Your task to perform on an android device: open device folders in google photos Image 0: 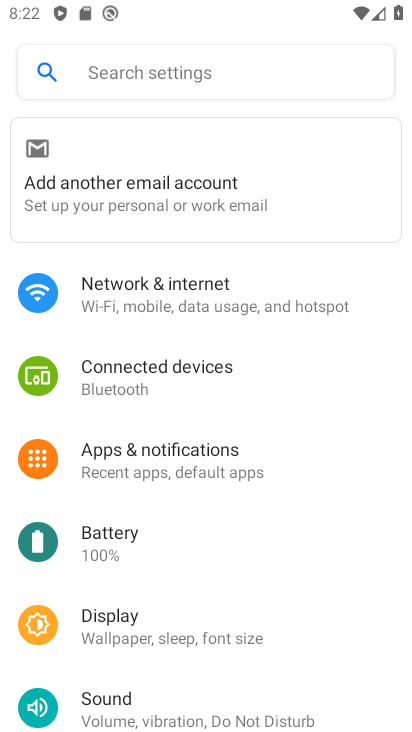
Step 0: press home button
Your task to perform on an android device: open device folders in google photos Image 1: 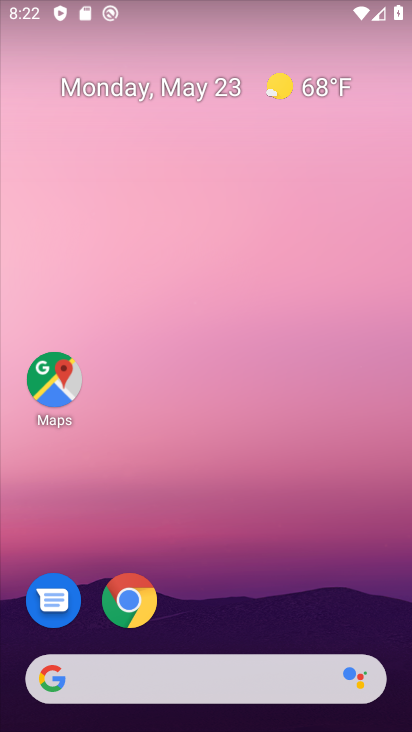
Step 1: drag from (6, 669) to (263, 121)
Your task to perform on an android device: open device folders in google photos Image 2: 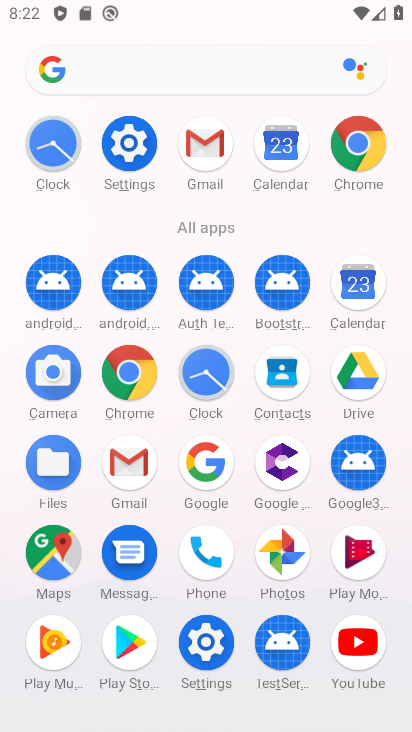
Step 2: click (254, 551)
Your task to perform on an android device: open device folders in google photos Image 3: 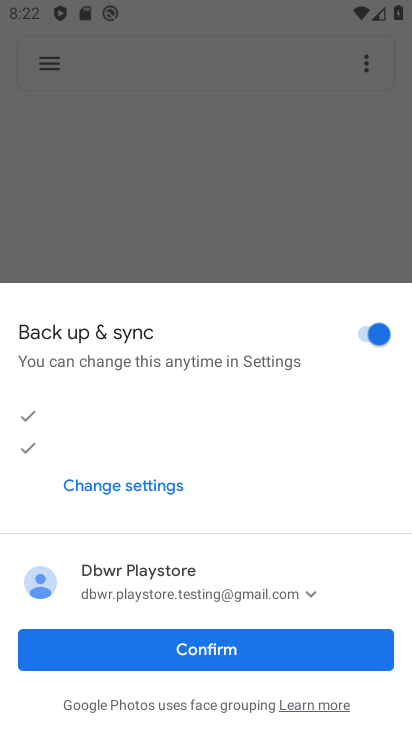
Step 3: click (38, 58)
Your task to perform on an android device: open device folders in google photos Image 4: 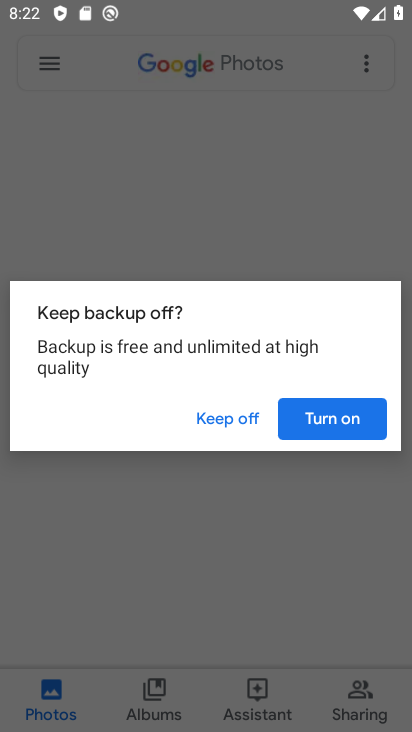
Step 4: click (287, 532)
Your task to perform on an android device: open device folders in google photos Image 5: 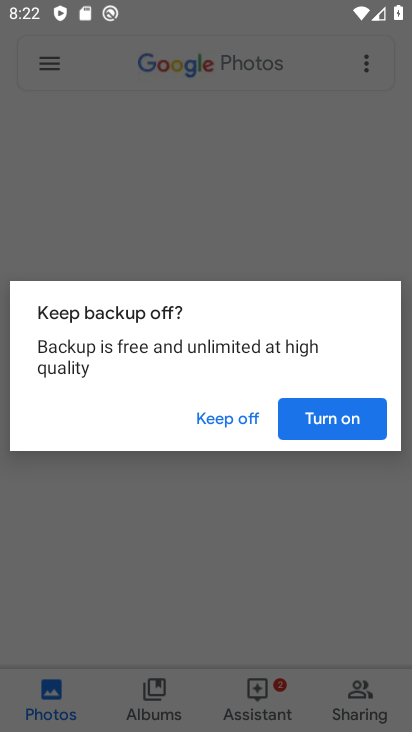
Step 5: click (332, 423)
Your task to perform on an android device: open device folders in google photos Image 6: 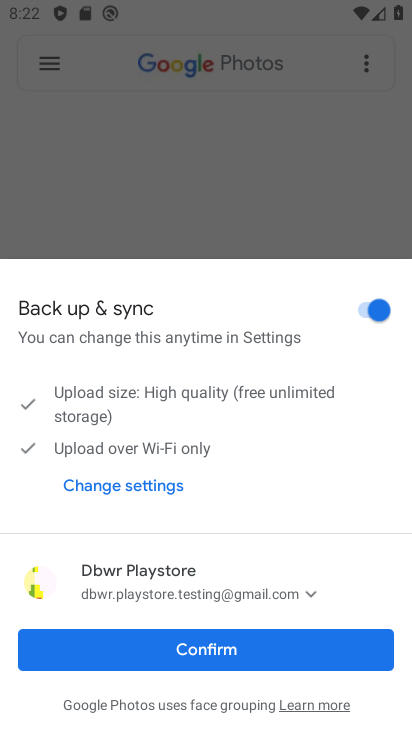
Step 6: click (158, 638)
Your task to perform on an android device: open device folders in google photos Image 7: 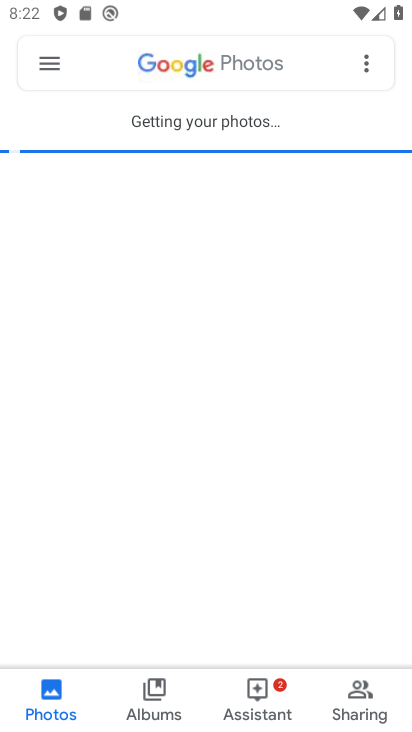
Step 7: click (45, 60)
Your task to perform on an android device: open device folders in google photos Image 8: 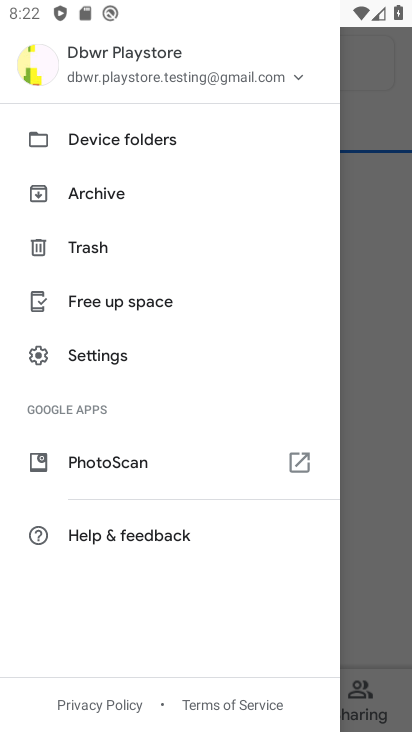
Step 8: click (118, 133)
Your task to perform on an android device: open device folders in google photos Image 9: 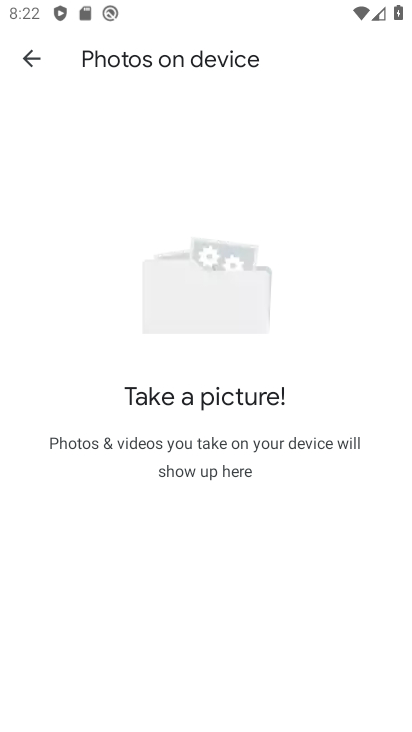
Step 9: task complete